Your task to perform on an android device: delete browsing data in the chrome app Image 0: 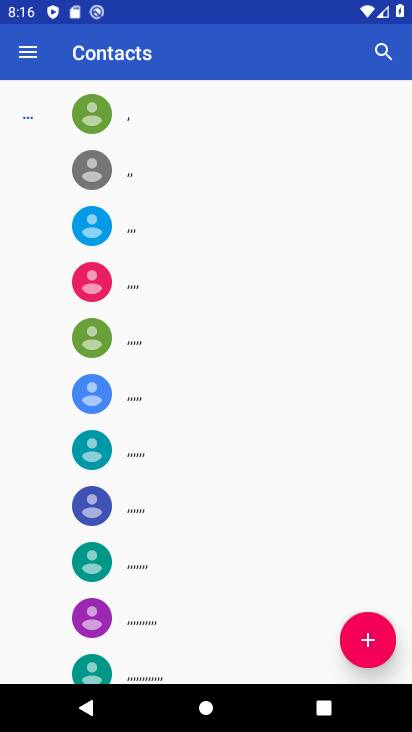
Step 0: press home button
Your task to perform on an android device: delete browsing data in the chrome app Image 1: 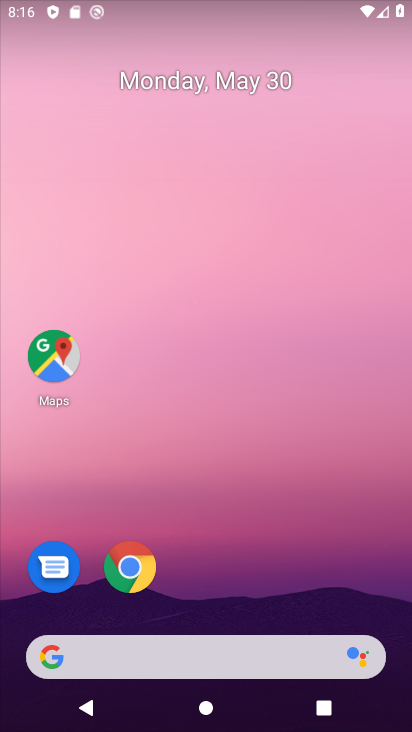
Step 1: click (137, 577)
Your task to perform on an android device: delete browsing data in the chrome app Image 2: 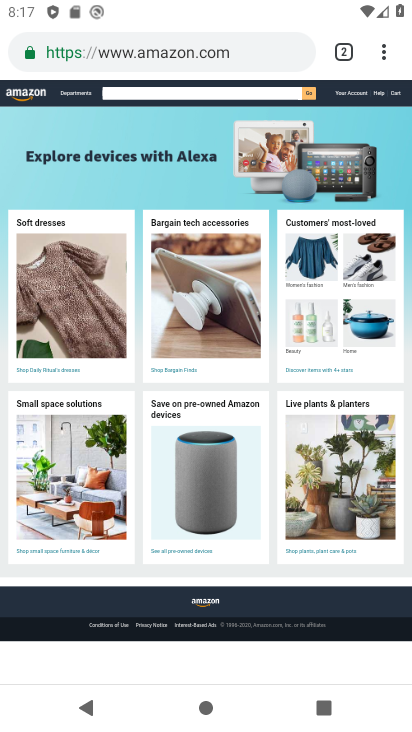
Step 2: click (390, 52)
Your task to perform on an android device: delete browsing data in the chrome app Image 3: 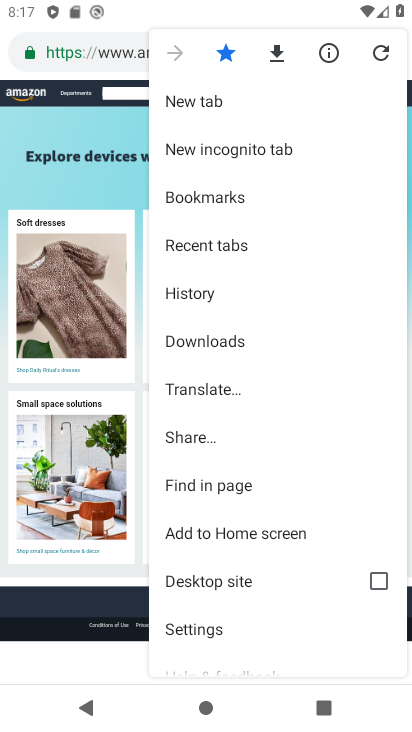
Step 3: click (201, 305)
Your task to perform on an android device: delete browsing data in the chrome app Image 4: 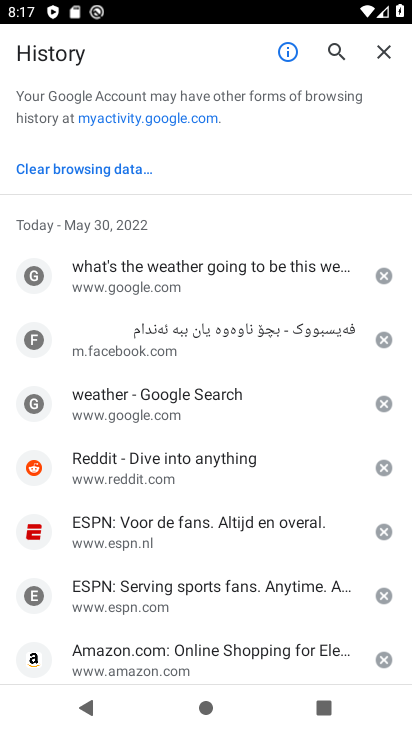
Step 4: click (65, 163)
Your task to perform on an android device: delete browsing data in the chrome app Image 5: 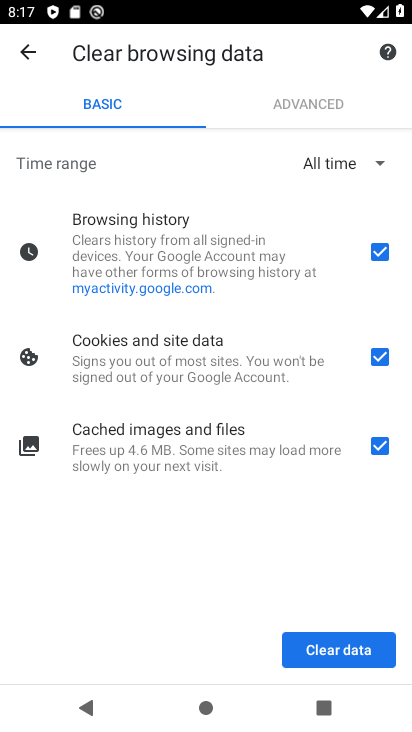
Step 5: click (379, 361)
Your task to perform on an android device: delete browsing data in the chrome app Image 6: 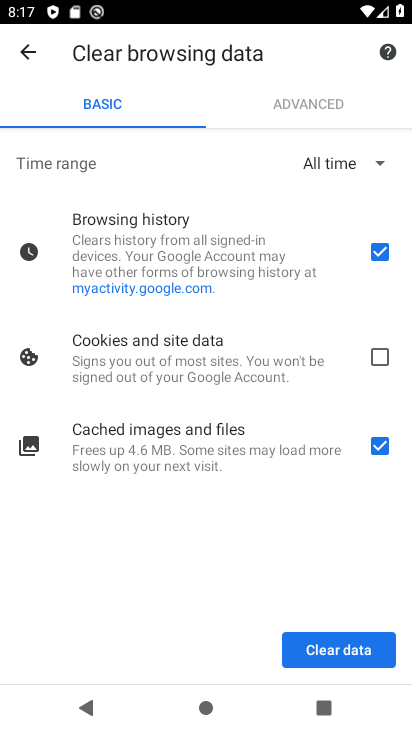
Step 6: click (381, 452)
Your task to perform on an android device: delete browsing data in the chrome app Image 7: 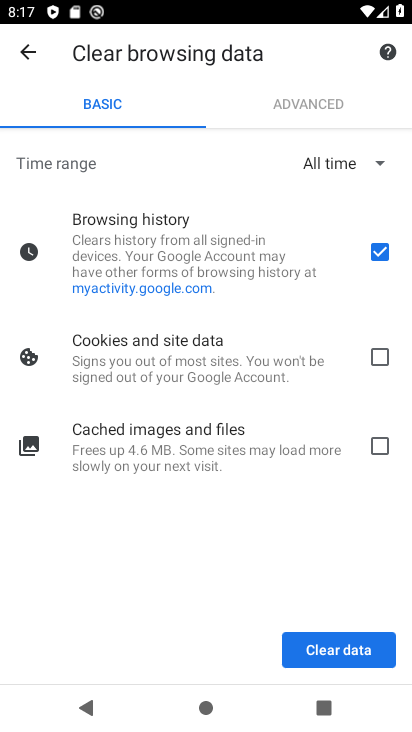
Step 7: click (335, 648)
Your task to perform on an android device: delete browsing data in the chrome app Image 8: 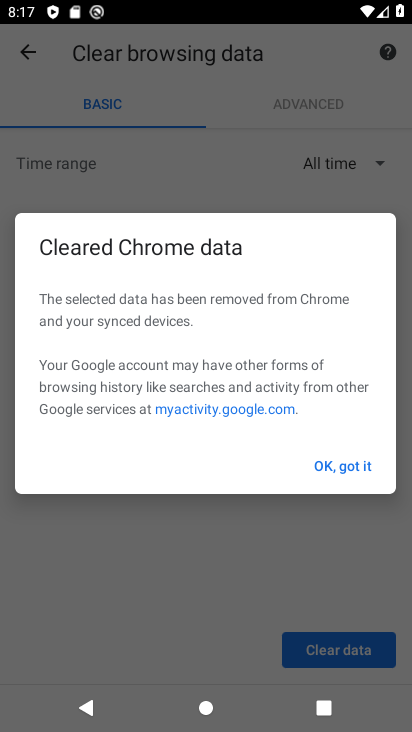
Step 8: click (361, 469)
Your task to perform on an android device: delete browsing data in the chrome app Image 9: 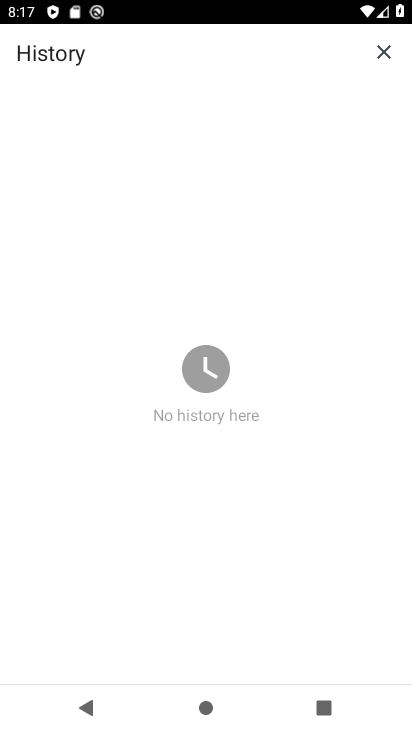
Step 9: task complete